Your task to perform on an android device: Open calendar and show me the fourth week of next month Image 0: 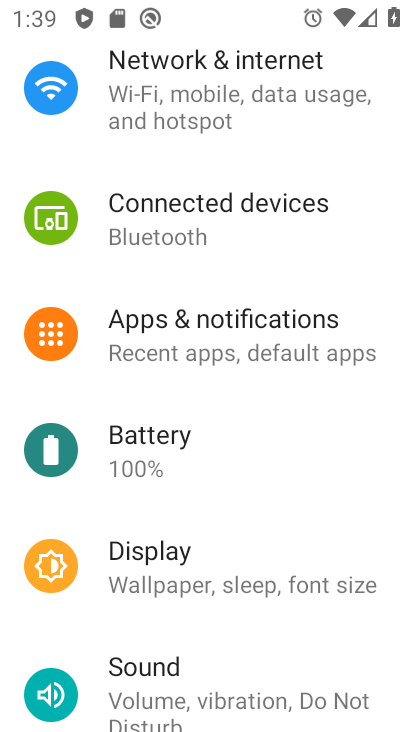
Step 0: press home button
Your task to perform on an android device: Open calendar and show me the fourth week of next month Image 1: 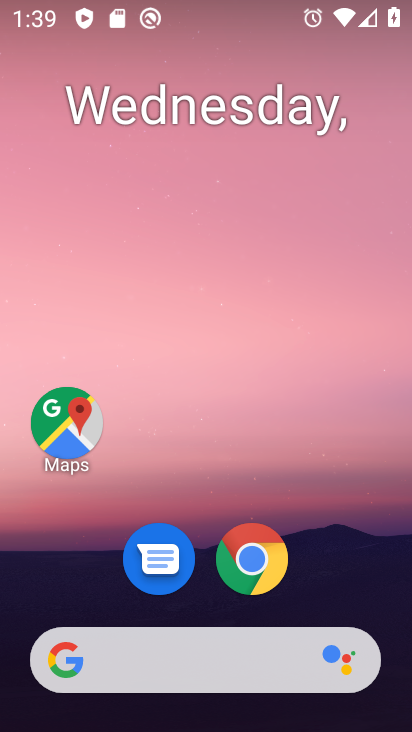
Step 1: drag from (373, 557) to (361, 72)
Your task to perform on an android device: Open calendar and show me the fourth week of next month Image 2: 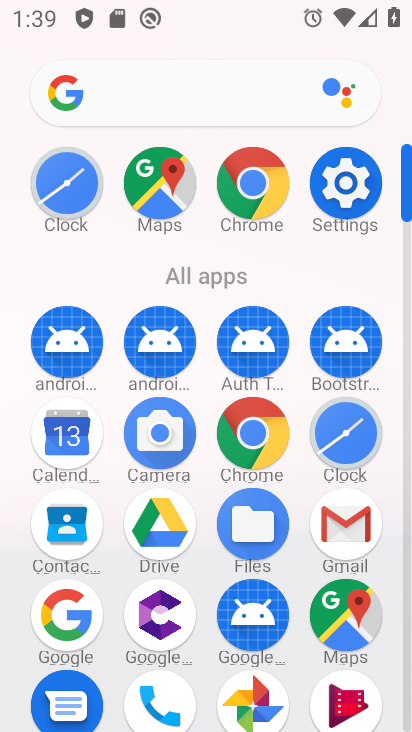
Step 2: click (64, 435)
Your task to perform on an android device: Open calendar and show me the fourth week of next month Image 3: 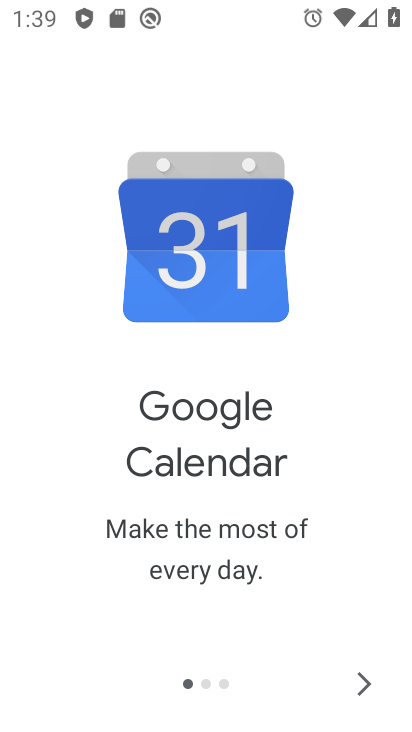
Step 3: click (366, 684)
Your task to perform on an android device: Open calendar and show me the fourth week of next month Image 4: 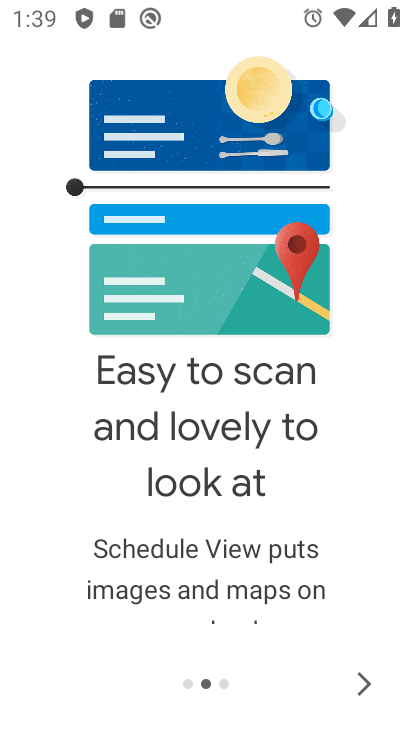
Step 4: click (366, 684)
Your task to perform on an android device: Open calendar and show me the fourth week of next month Image 5: 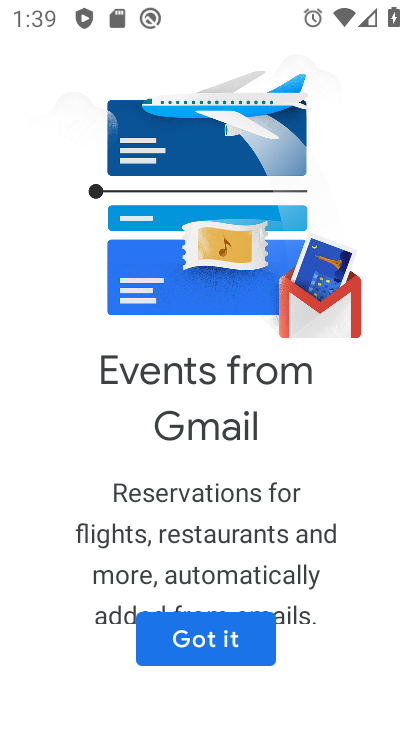
Step 5: click (203, 642)
Your task to perform on an android device: Open calendar and show me the fourth week of next month Image 6: 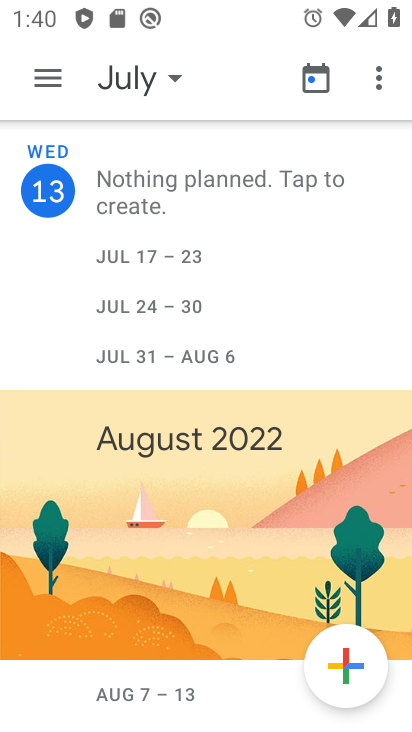
Step 6: click (130, 81)
Your task to perform on an android device: Open calendar and show me the fourth week of next month Image 7: 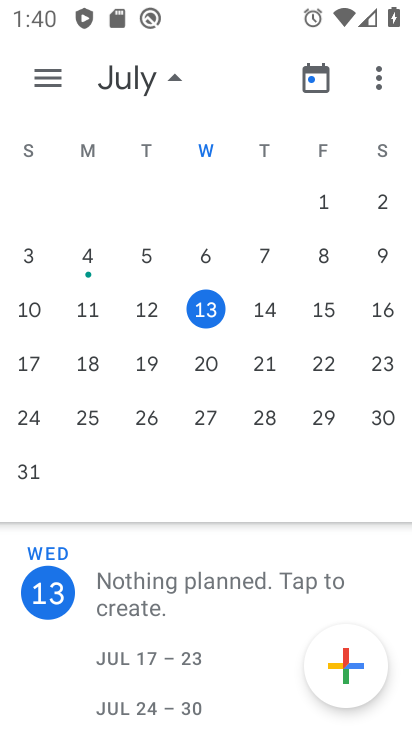
Step 7: drag from (406, 326) to (26, 313)
Your task to perform on an android device: Open calendar and show me the fourth week of next month Image 8: 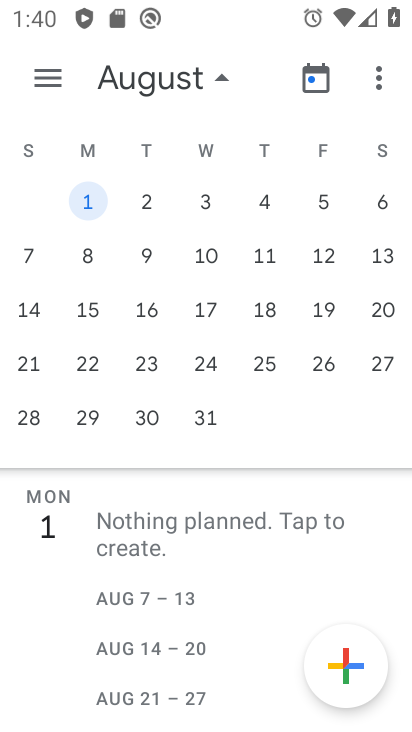
Step 8: click (55, 81)
Your task to perform on an android device: Open calendar and show me the fourth week of next month Image 9: 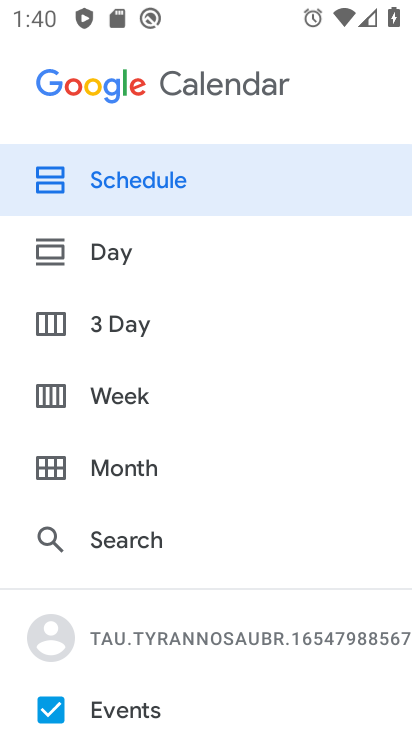
Step 9: click (145, 398)
Your task to perform on an android device: Open calendar and show me the fourth week of next month Image 10: 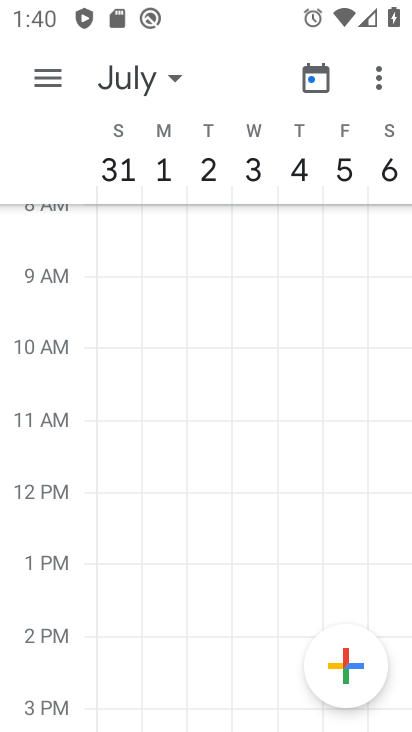
Step 10: click (175, 94)
Your task to perform on an android device: Open calendar and show me the fourth week of next month Image 11: 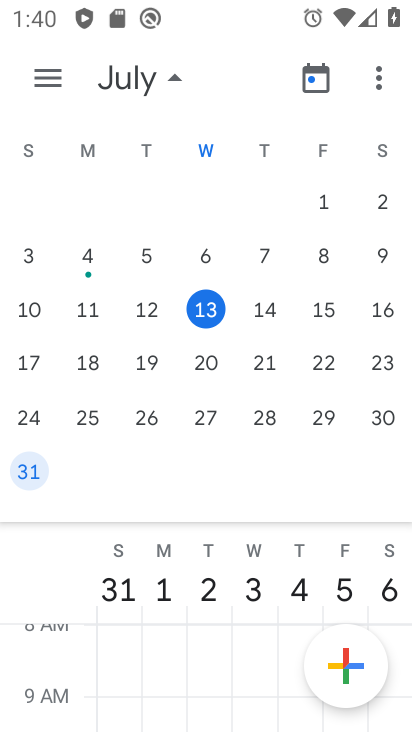
Step 11: drag from (367, 355) to (8, 358)
Your task to perform on an android device: Open calendar and show me the fourth week of next month Image 12: 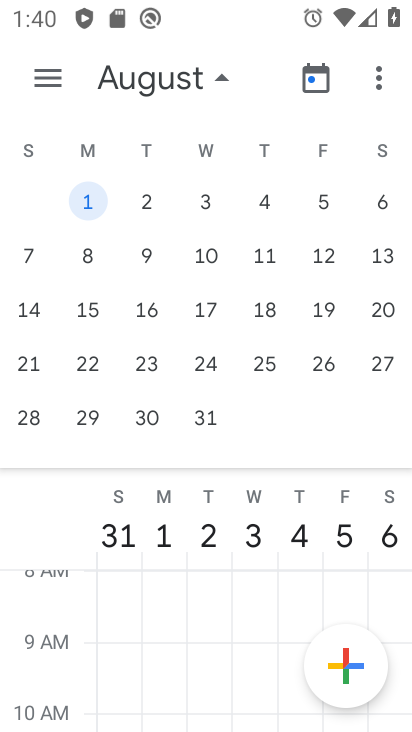
Step 12: click (139, 366)
Your task to perform on an android device: Open calendar and show me the fourth week of next month Image 13: 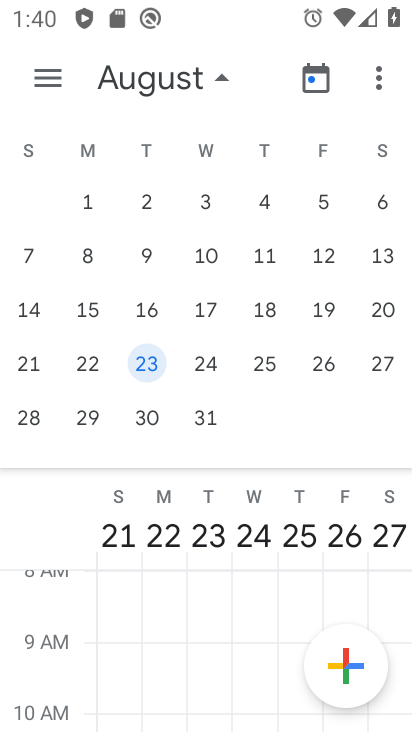
Step 13: task complete